Your task to perform on an android device: Open the calendar app, open the side menu, and click the "Day" option Image 0: 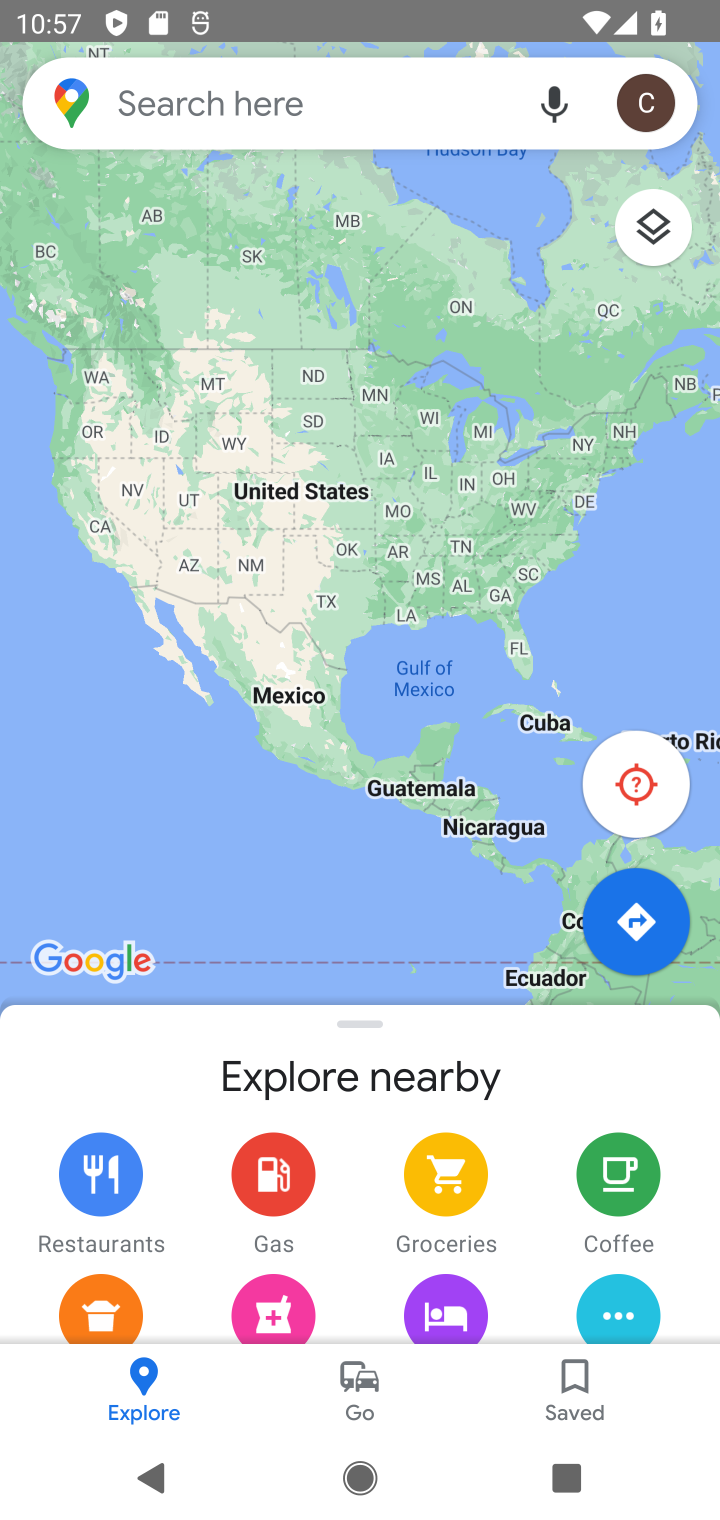
Step 0: press home button
Your task to perform on an android device: Open the calendar app, open the side menu, and click the "Day" option Image 1: 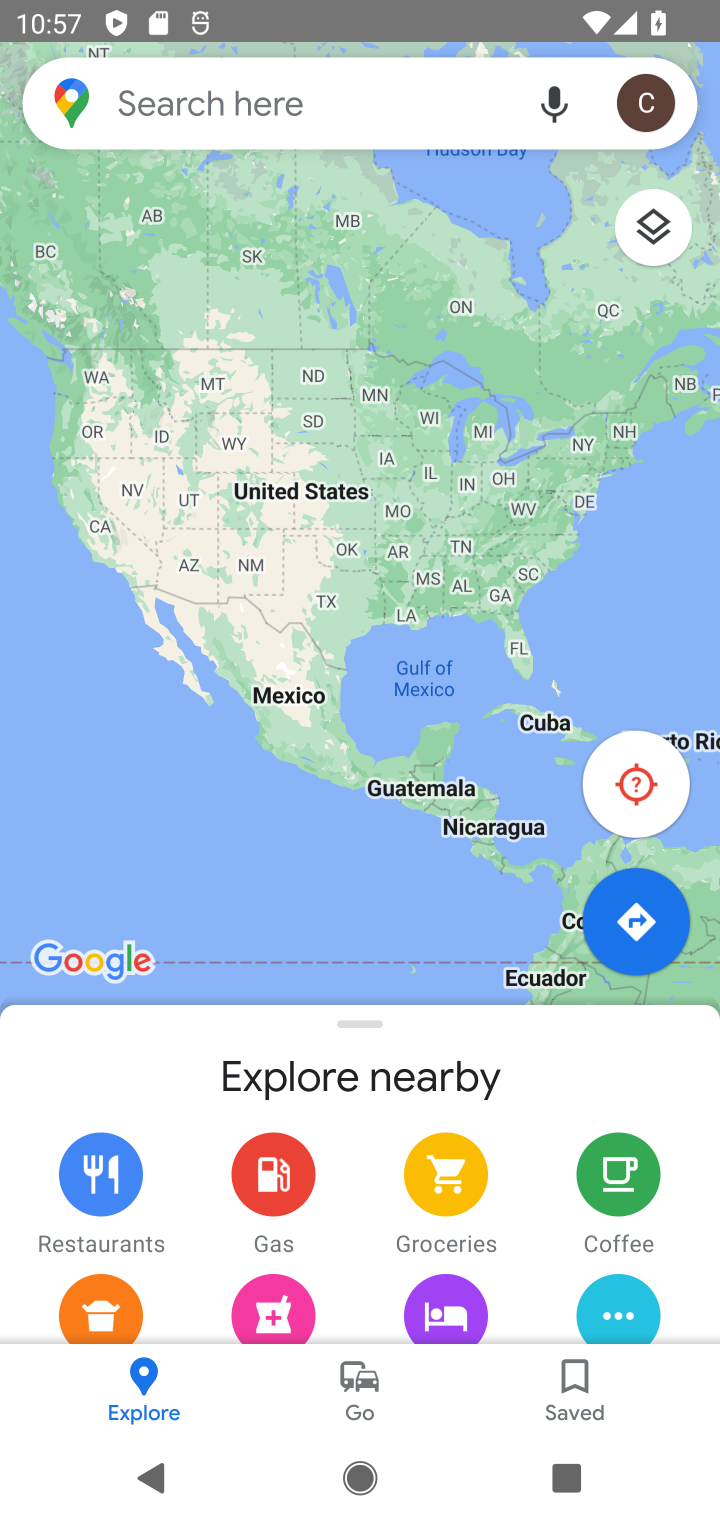
Step 1: press home button
Your task to perform on an android device: Open the calendar app, open the side menu, and click the "Day" option Image 2: 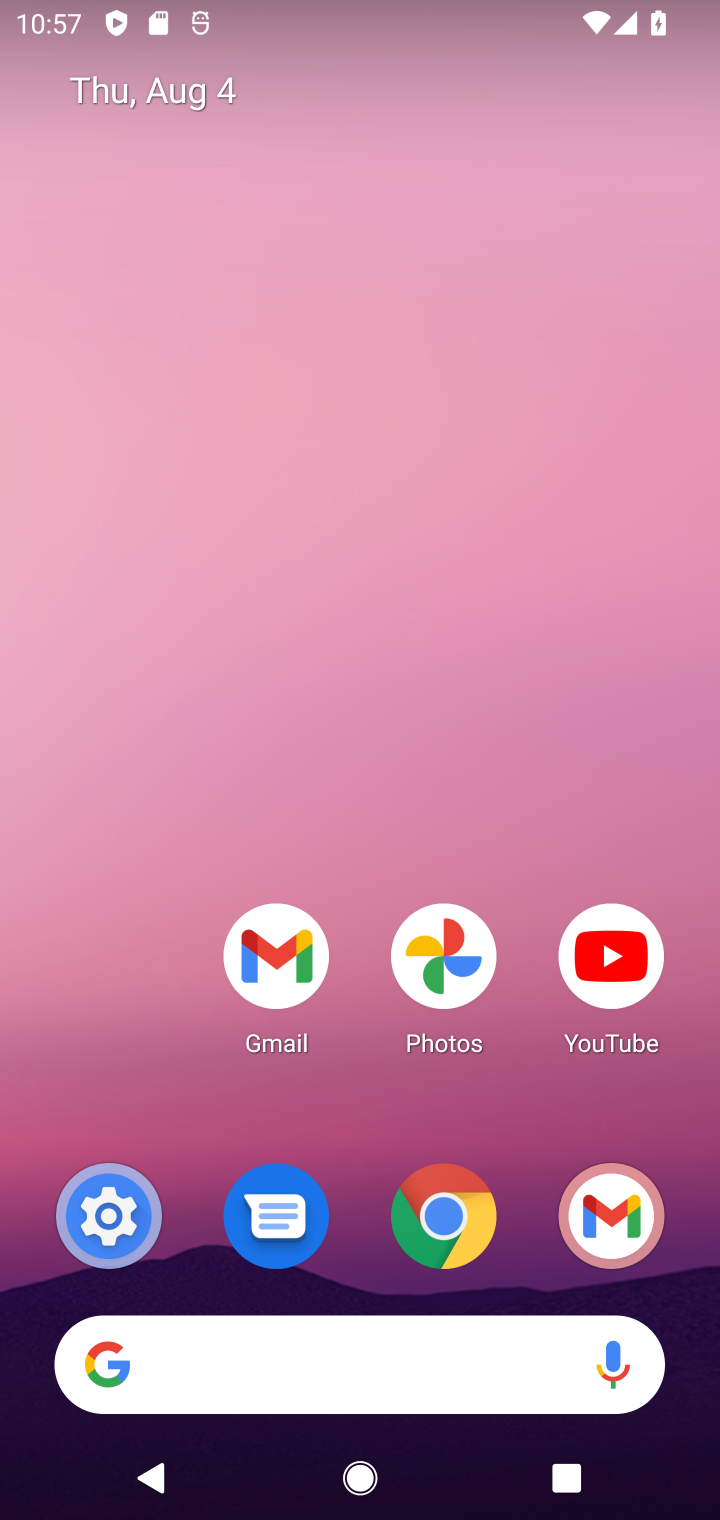
Step 2: drag from (139, 988) to (237, 0)
Your task to perform on an android device: Open the calendar app, open the side menu, and click the "Day" option Image 3: 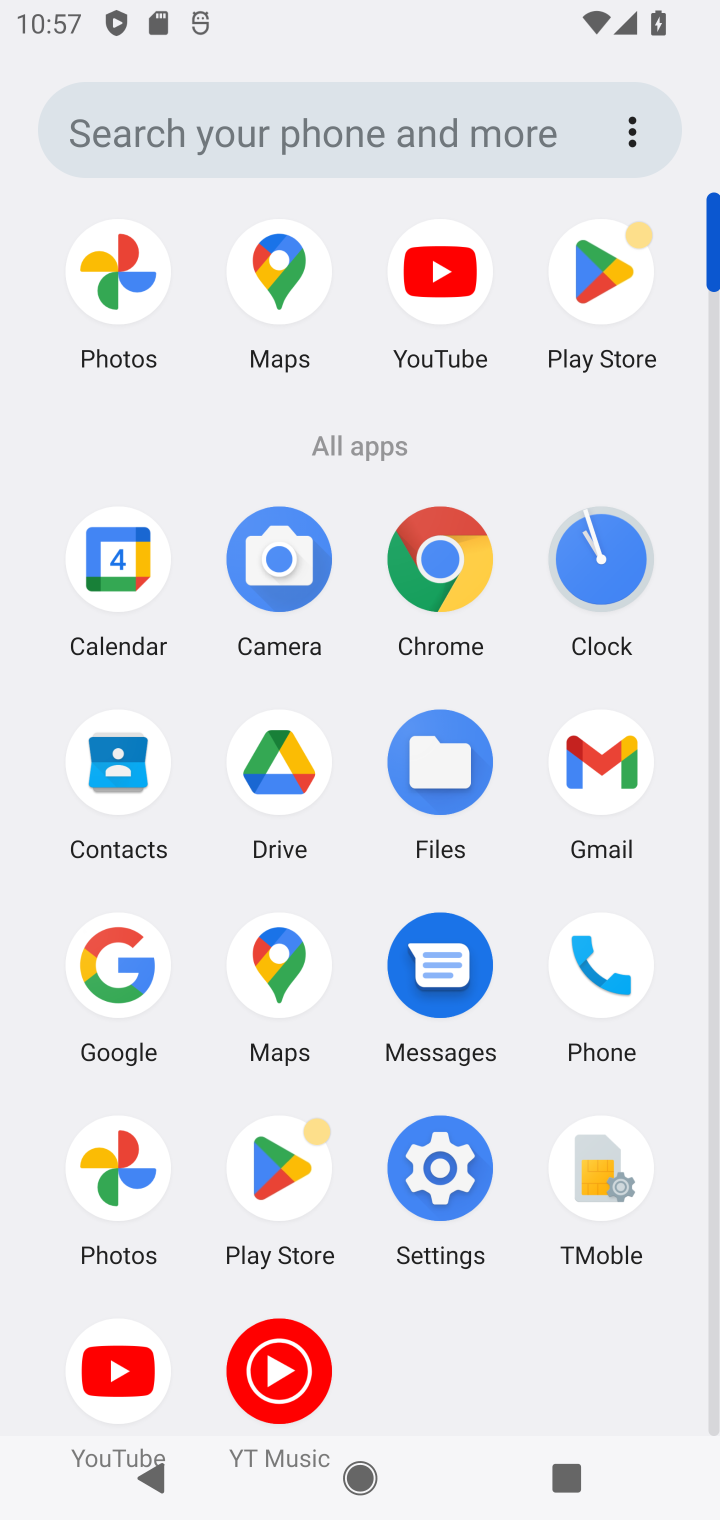
Step 3: click (119, 546)
Your task to perform on an android device: Open the calendar app, open the side menu, and click the "Day" option Image 4: 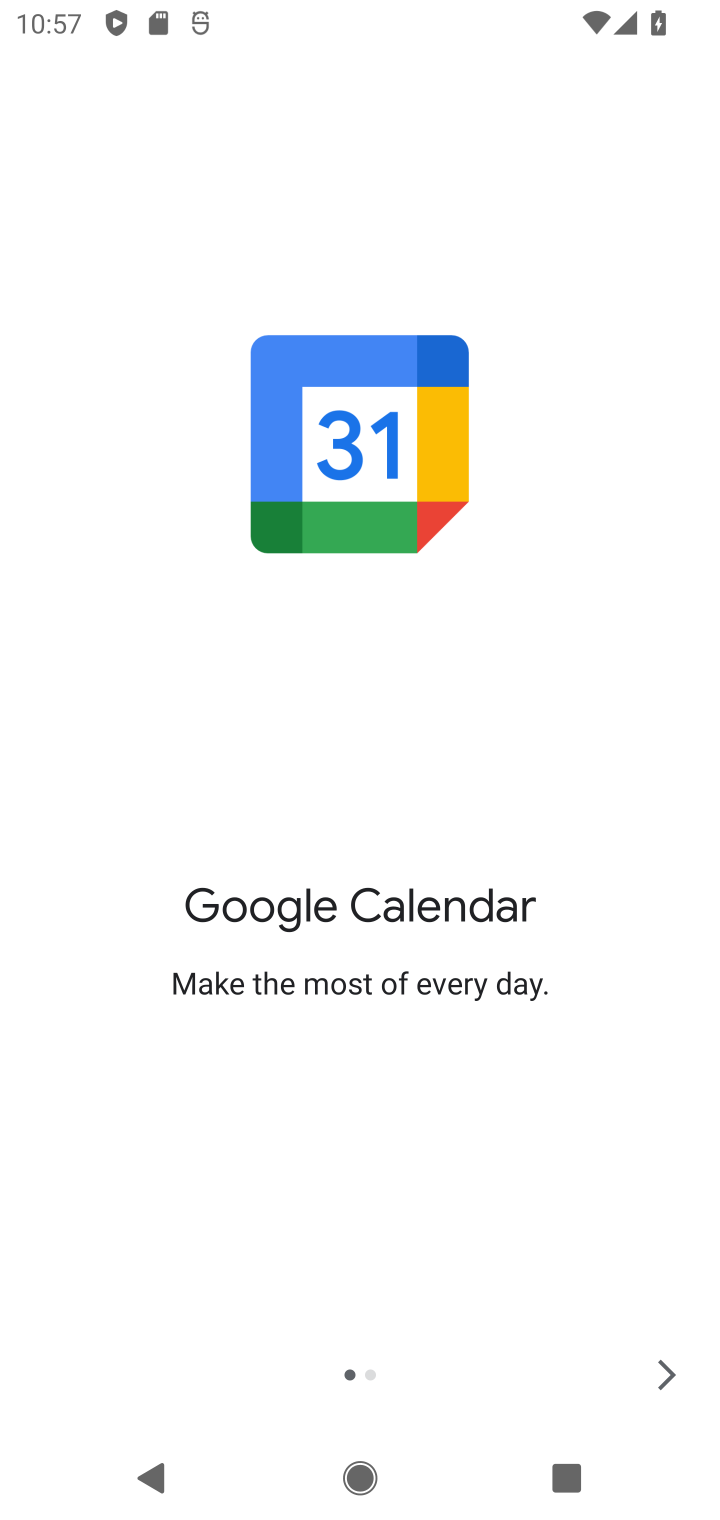
Step 4: click (653, 1360)
Your task to perform on an android device: Open the calendar app, open the side menu, and click the "Day" option Image 5: 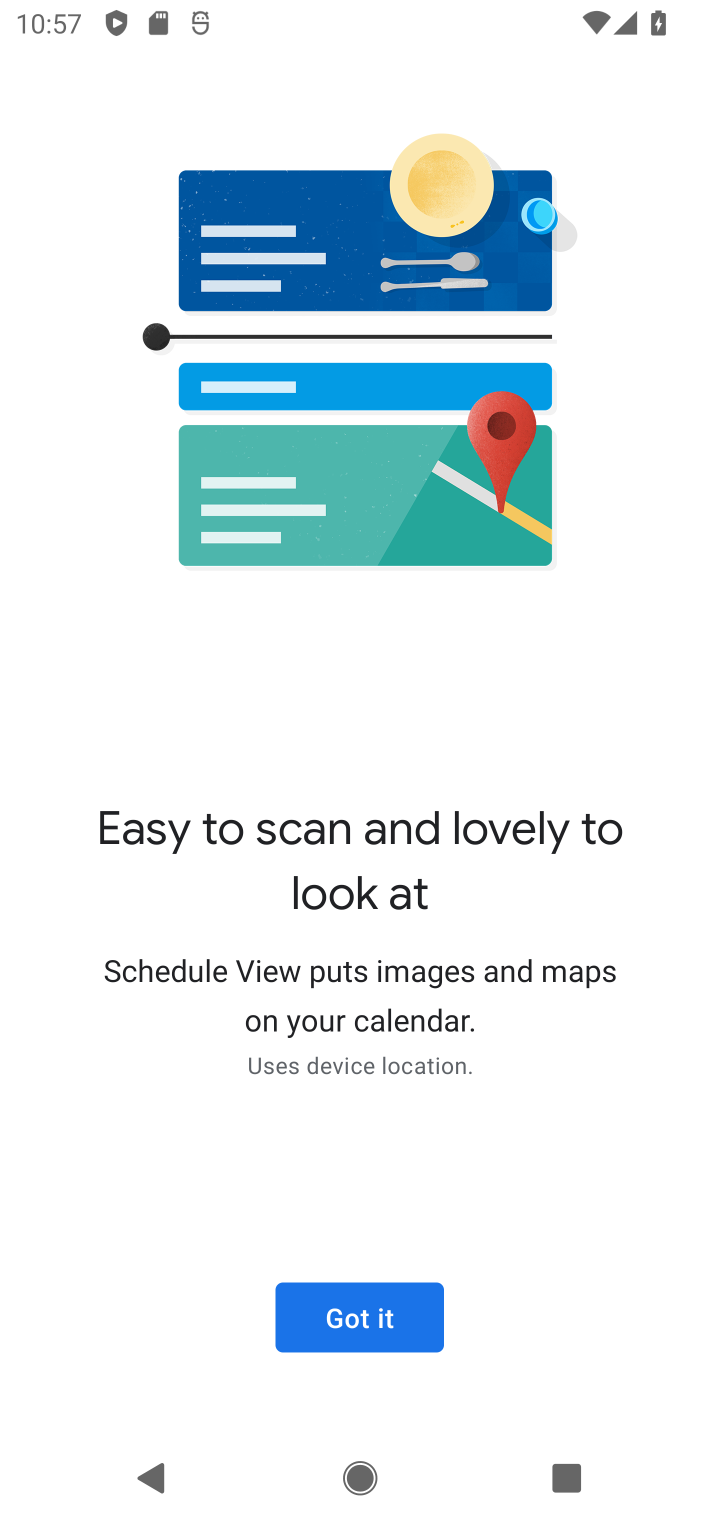
Step 5: click (420, 1318)
Your task to perform on an android device: Open the calendar app, open the side menu, and click the "Day" option Image 6: 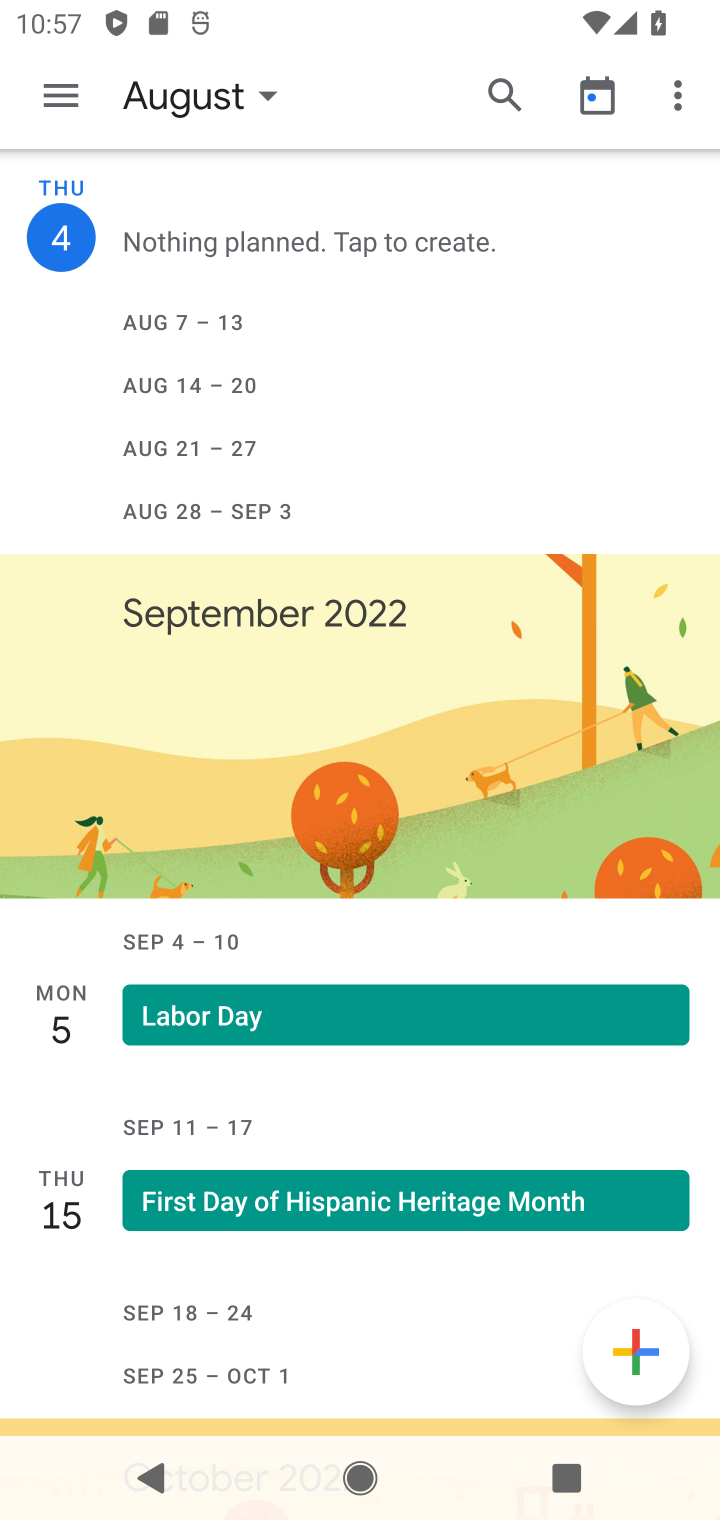
Step 6: click (57, 87)
Your task to perform on an android device: Open the calendar app, open the side menu, and click the "Day" option Image 7: 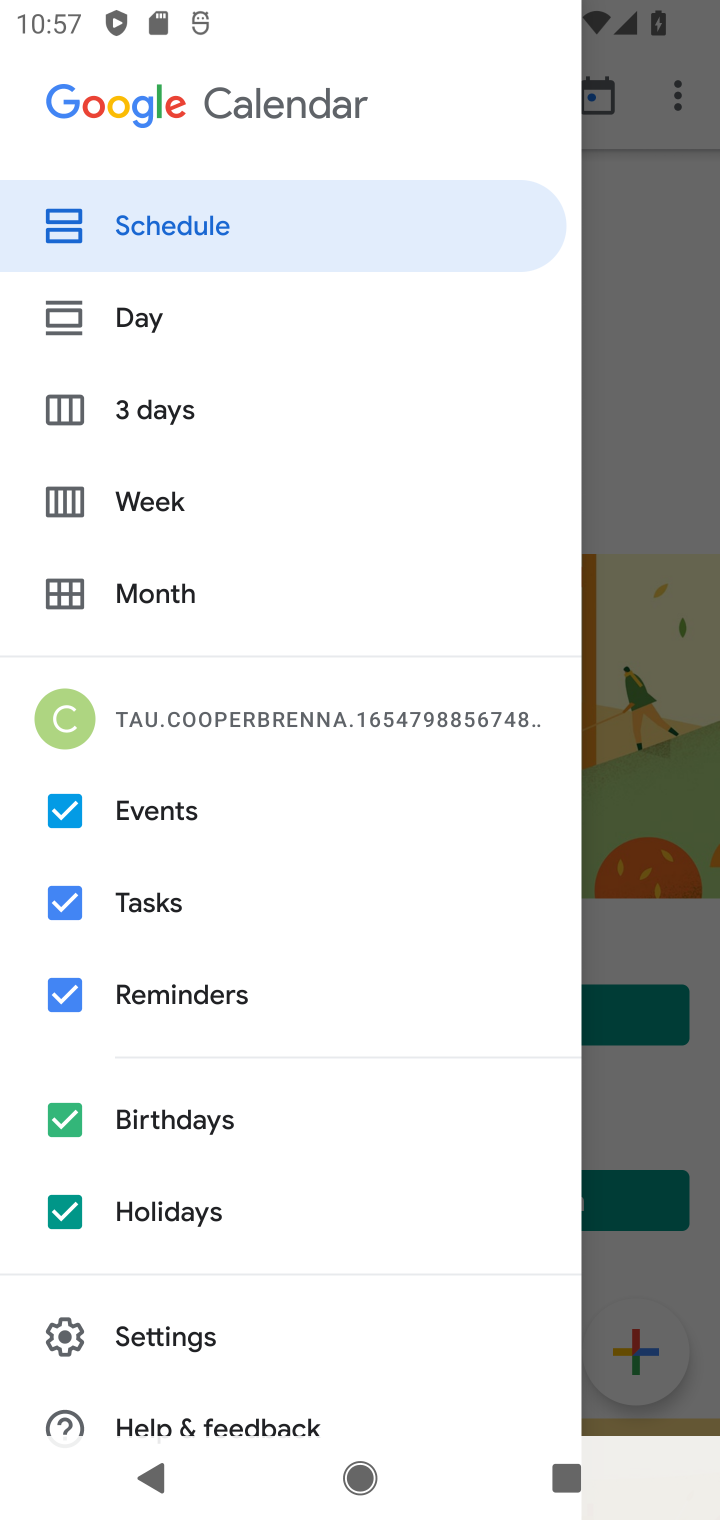
Step 7: click (67, 320)
Your task to perform on an android device: Open the calendar app, open the side menu, and click the "Day" option Image 8: 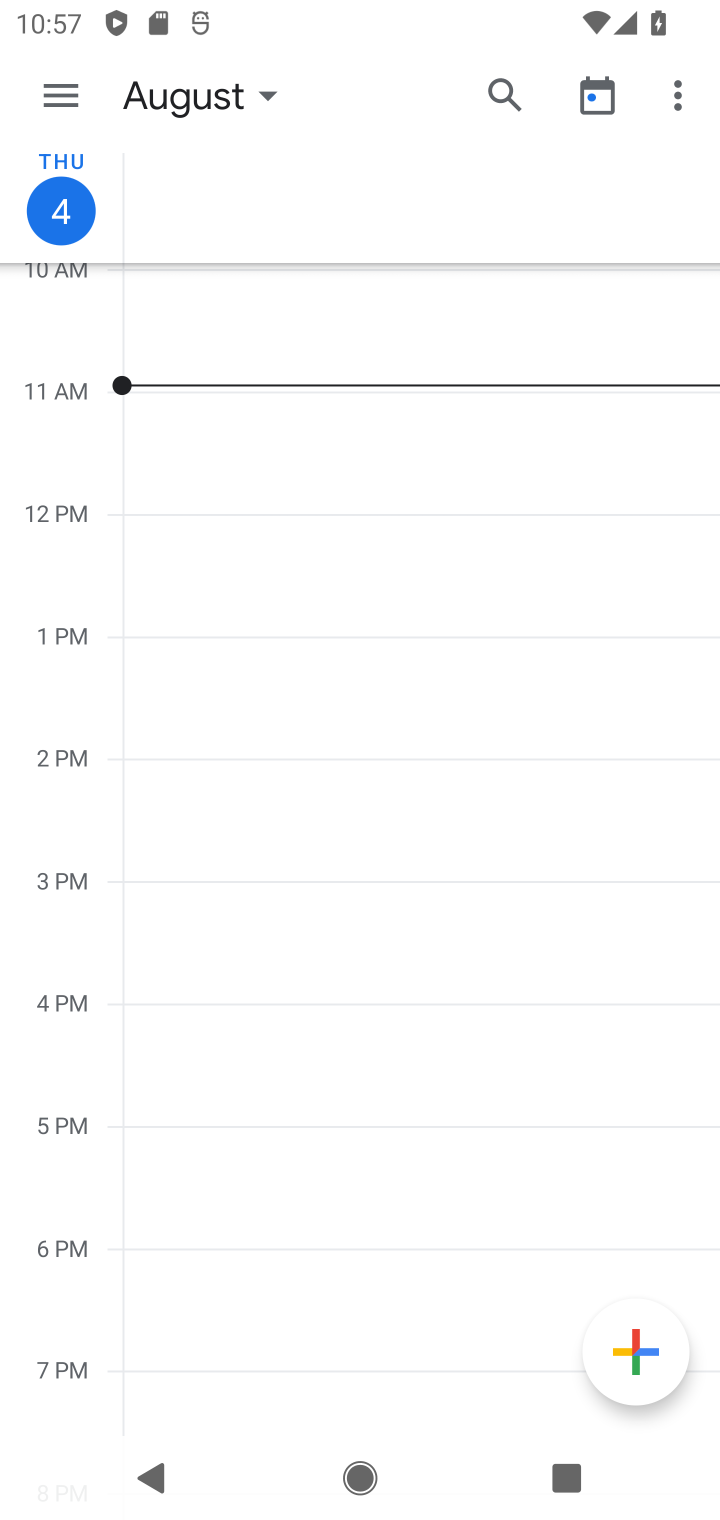
Step 8: task complete